Your task to perform on an android device: allow notifications from all sites in the chrome app Image 0: 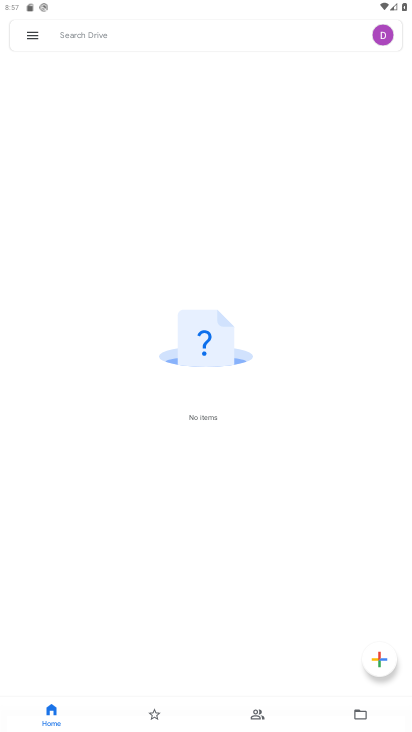
Step 0: press home button
Your task to perform on an android device: allow notifications from all sites in the chrome app Image 1: 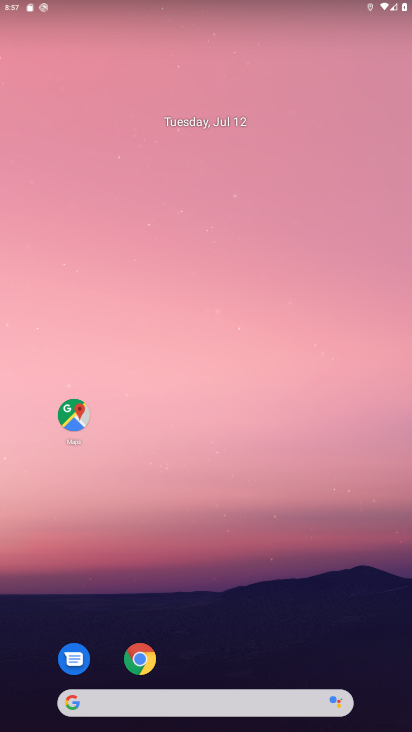
Step 1: drag from (250, 652) to (186, 0)
Your task to perform on an android device: allow notifications from all sites in the chrome app Image 2: 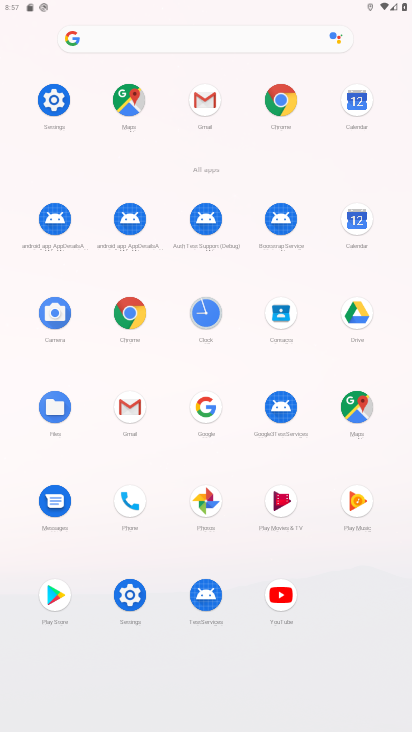
Step 2: click (118, 306)
Your task to perform on an android device: allow notifications from all sites in the chrome app Image 3: 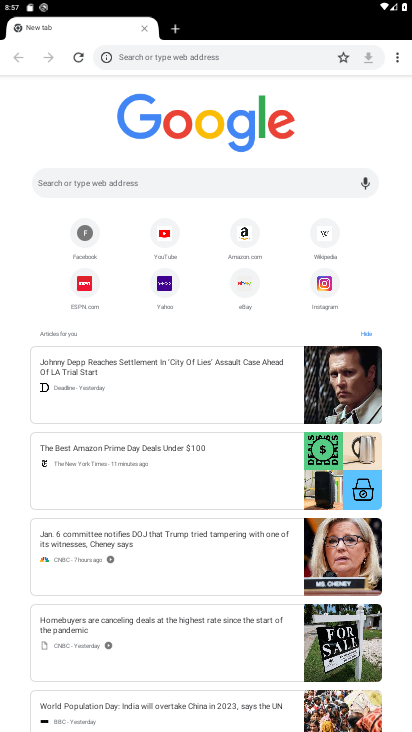
Step 3: drag from (398, 54) to (284, 270)
Your task to perform on an android device: allow notifications from all sites in the chrome app Image 4: 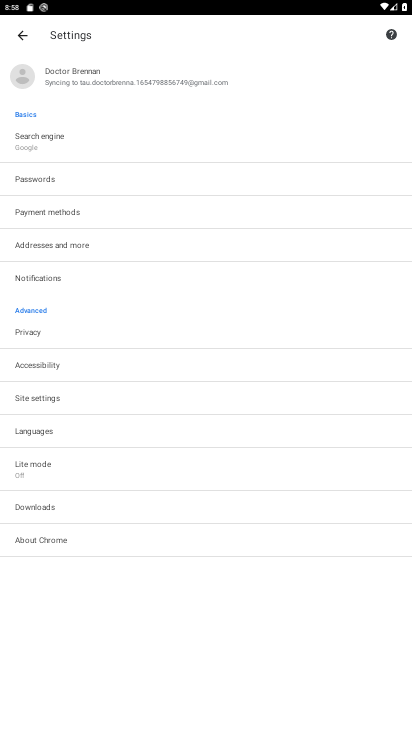
Step 4: click (36, 388)
Your task to perform on an android device: allow notifications from all sites in the chrome app Image 5: 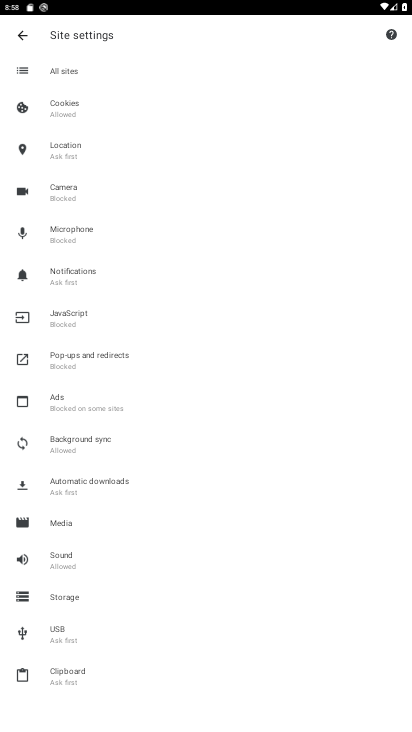
Step 5: click (56, 70)
Your task to perform on an android device: allow notifications from all sites in the chrome app Image 6: 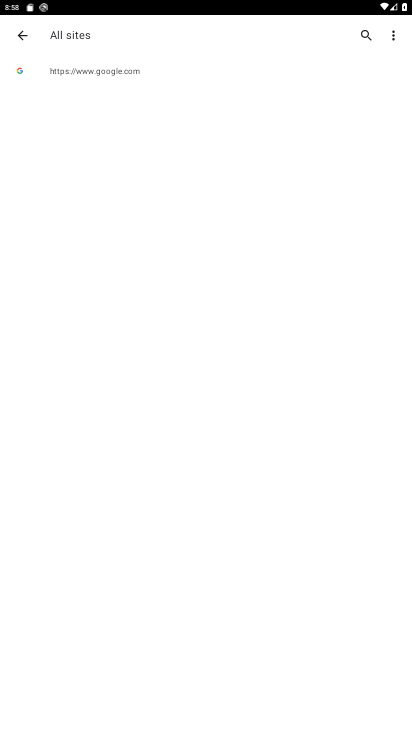
Step 6: click (97, 67)
Your task to perform on an android device: allow notifications from all sites in the chrome app Image 7: 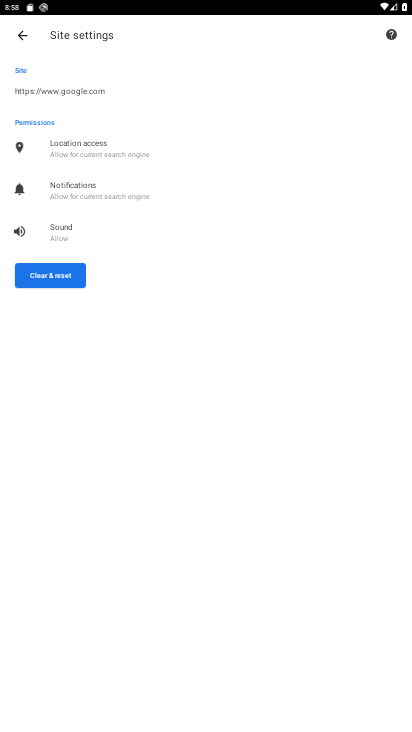
Step 7: click (58, 181)
Your task to perform on an android device: allow notifications from all sites in the chrome app Image 8: 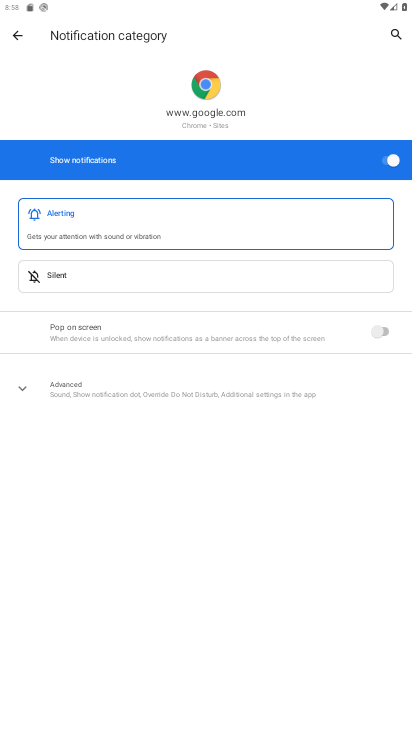
Step 8: task complete